Your task to perform on an android device: Go to eBay Image 0: 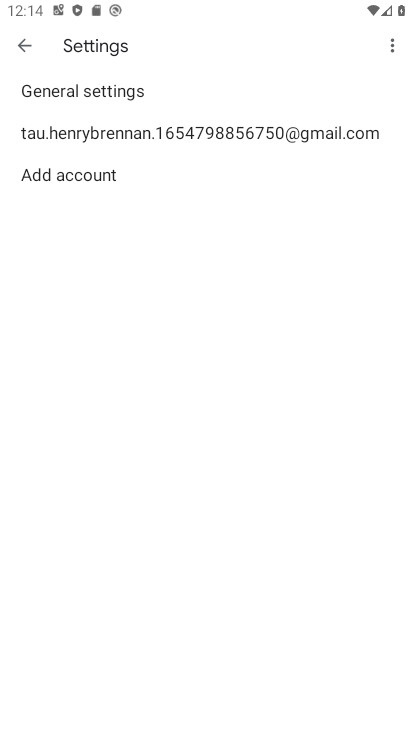
Step 0: press home button
Your task to perform on an android device: Go to eBay Image 1: 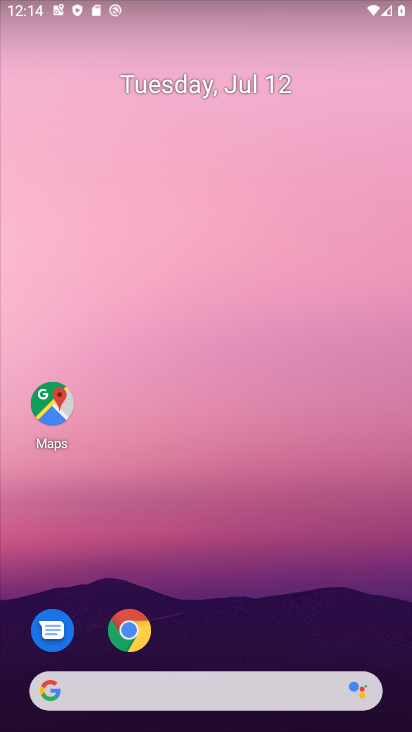
Step 1: click (125, 636)
Your task to perform on an android device: Go to eBay Image 2: 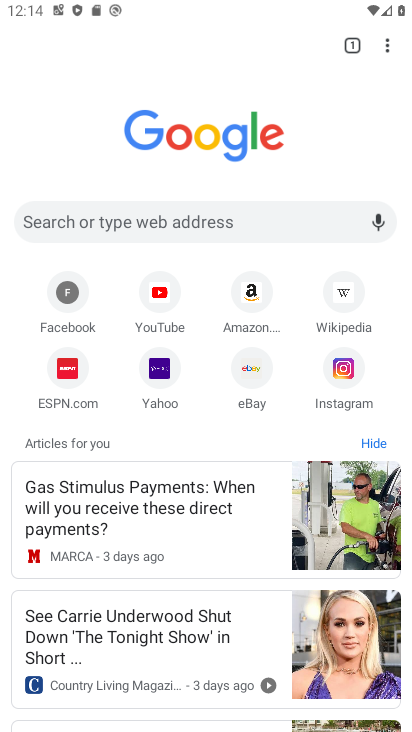
Step 2: click (248, 367)
Your task to perform on an android device: Go to eBay Image 3: 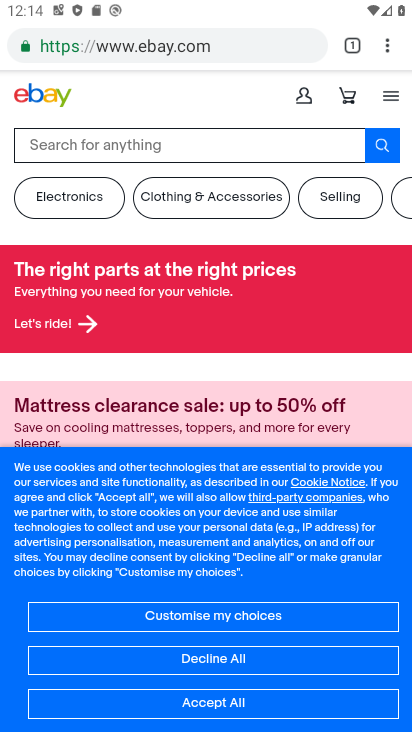
Step 3: click (230, 695)
Your task to perform on an android device: Go to eBay Image 4: 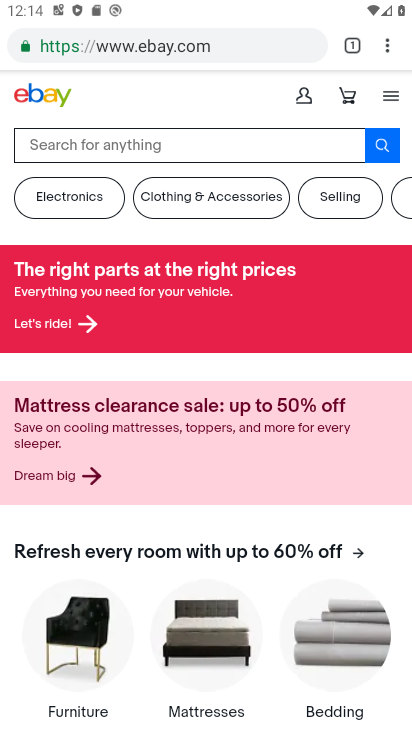
Step 4: task complete